Your task to perform on an android device: Go to CNN.com Image 0: 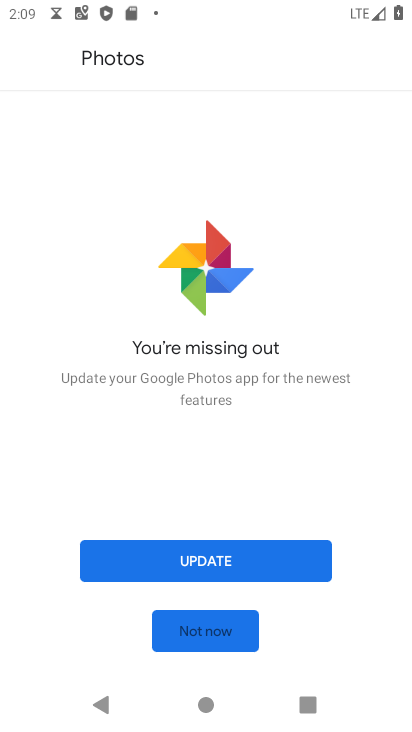
Step 0: press home button
Your task to perform on an android device: Go to CNN.com Image 1: 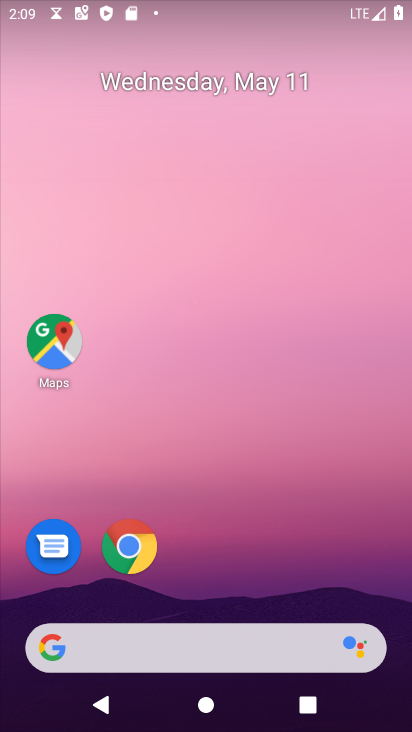
Step 1: drag from (224, 590) to (143, 17)
Your task to perform on an android device: Go to CNN.com Image 2: 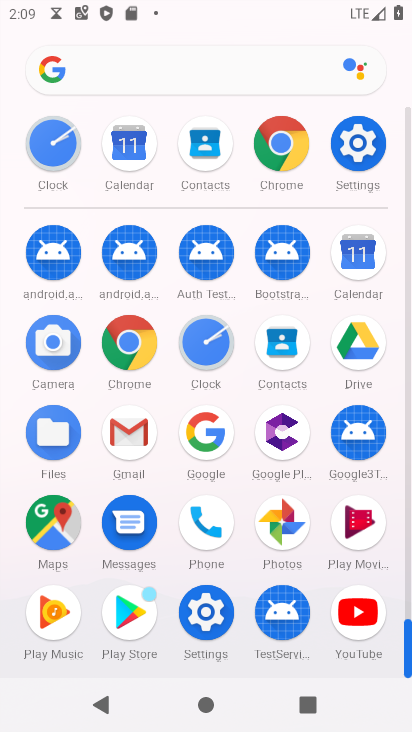
Step 2: click (111, 349)
Your task to perform on an android device: Go to CNN.com Image 3: 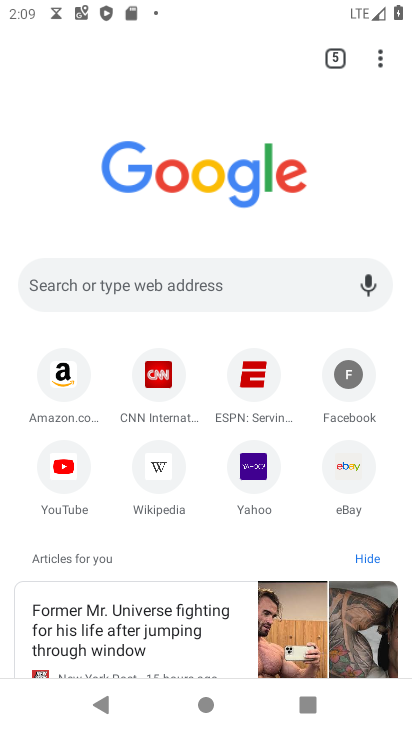
Step 3: click (213, 293)
Your task to perform on an android device: Go to CNN.com Image 4: 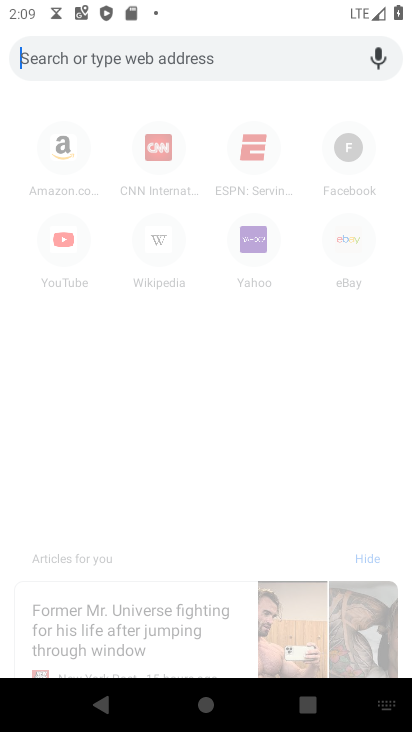
Step 4: type "cnn.com"
Your task to perform on an android device: Go to CNN.com Image 5: 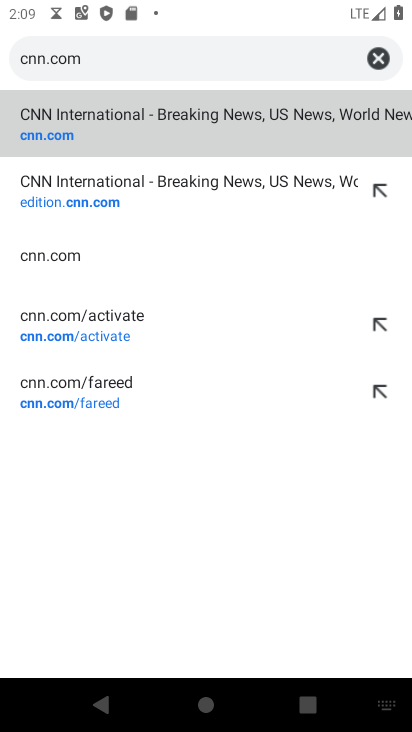
Step 5: click (285, 136)
Your task to perform on an android device: Go to CNN.com Image 6: 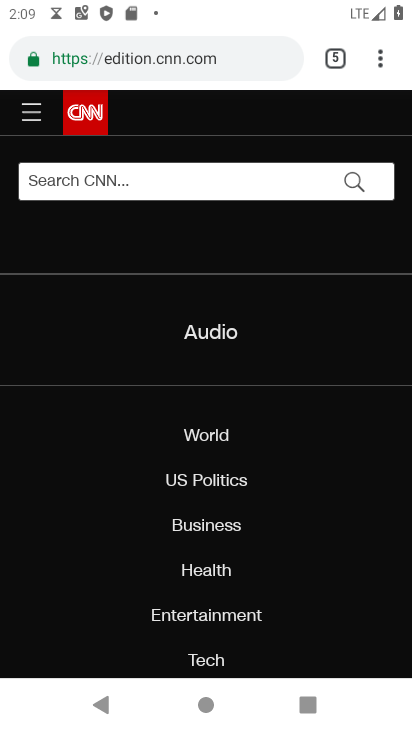
Step 6: task complete